Your task to perform on an android device: Go to Yahoo.com Image 0: 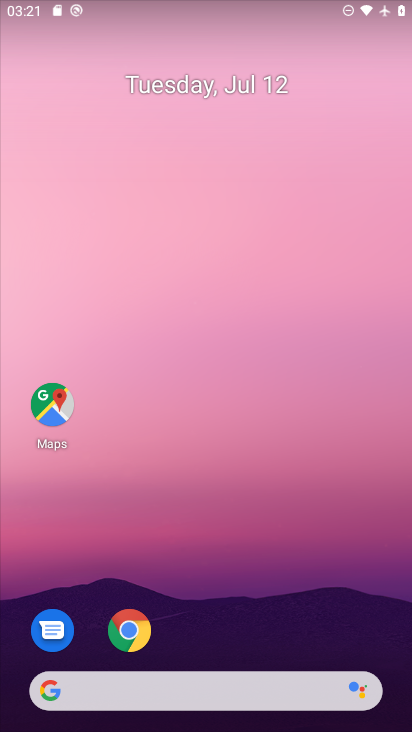
Step 0: click (132, 636)
Your task to perform on an android device: Go to Yahoo.com Image 1: 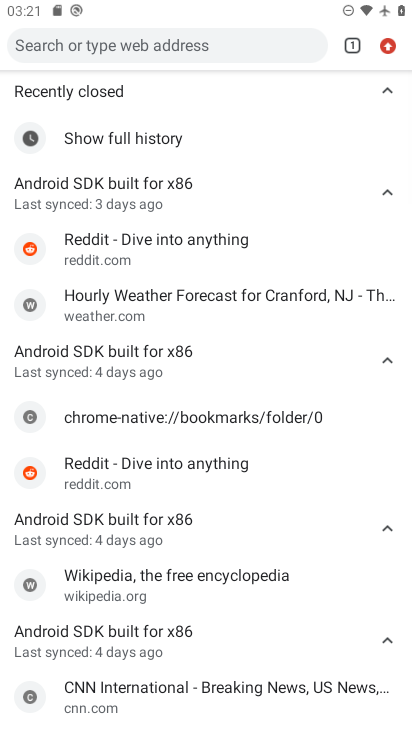
Step 1: click (147, 46)
Your task to perform on an android device: Go to Yahoo.com Image 2: 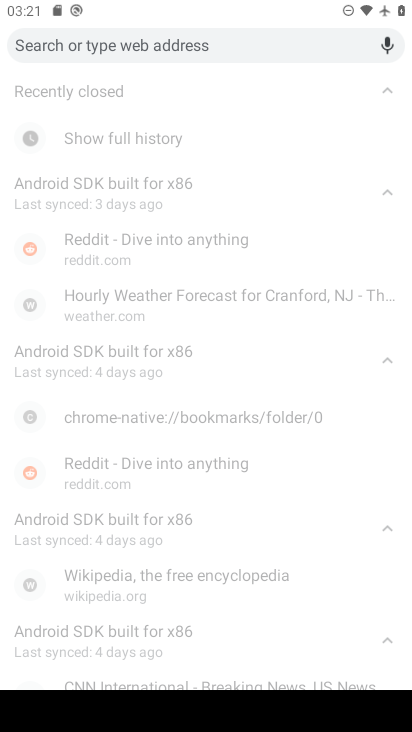
Step 2: type "yahoo.com"
Your task to perform on an android device: Go to Yahoo.com Image 3: 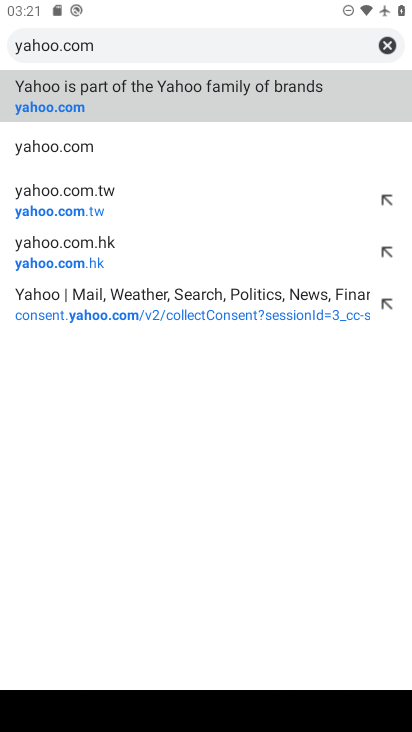
Step 3: click (94, 91)
Your task to perform on an android device: Go to Yahoo.com Image 4: 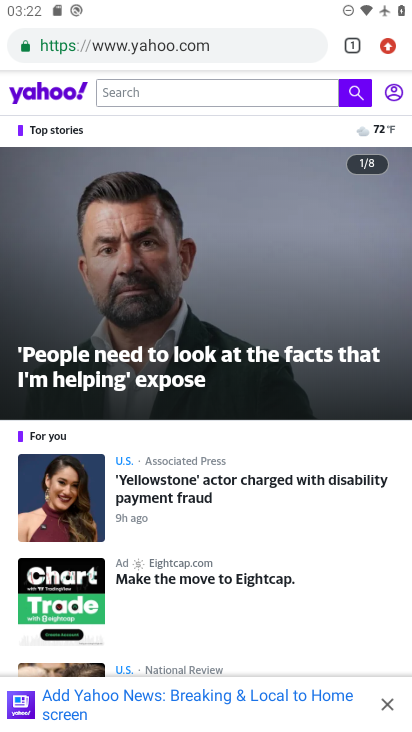
Step 4: task complete